Your task to perform on an android device: open chrome and create a bookmark for the current page Image 0: 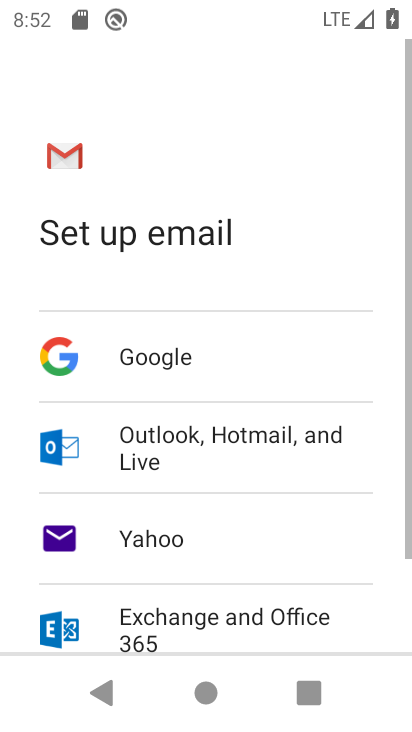
Step 0: press home button
Your task to perform on an android device: open chrome and create a bookmark for the current page Image 1: 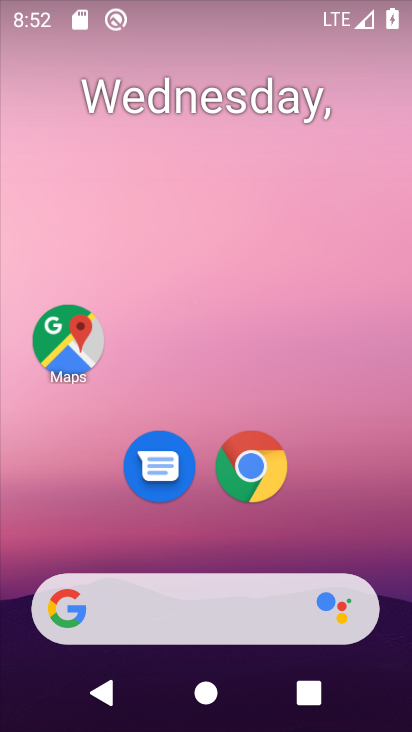
Step 1: click (250, 470)
Your task to perform on an android device: open chrome and create a bookmark for the current page Image 2: 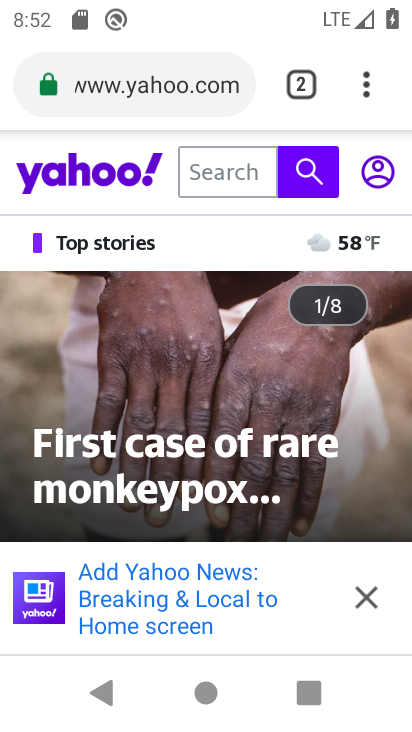
Step 2: click (366, 89)
Your task to perform on an android device: open chrome and create a bookmark for the current page Image 3: 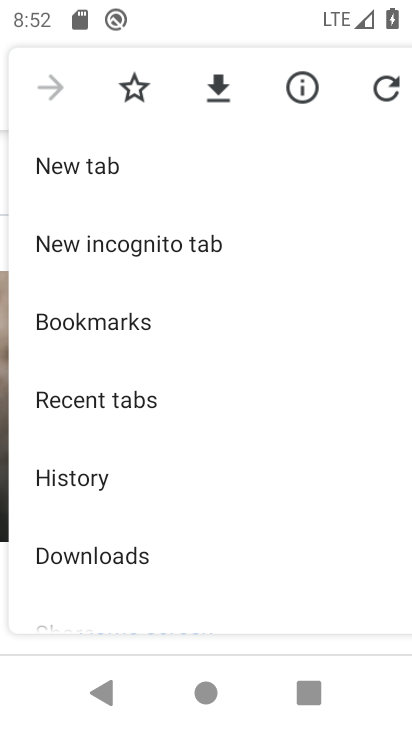
Step 3: click (139, 87)
Your task to perform on an android device: open chrome and create a bookmark for the current page Image 4: 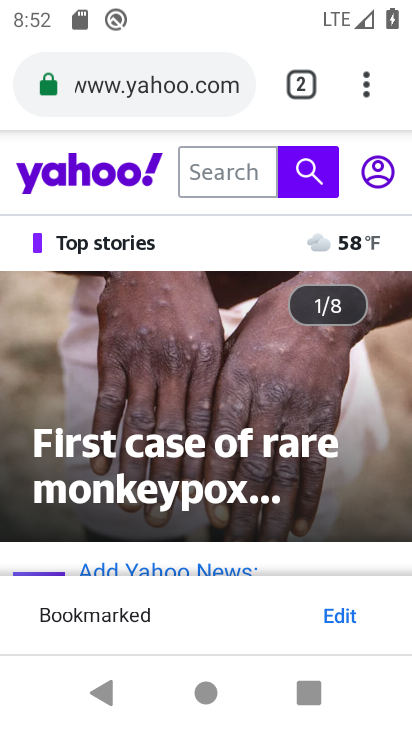
Step 4: task complete